Your task to perform on an android device: open the mobile data screen to see how much data has been used Image 0: 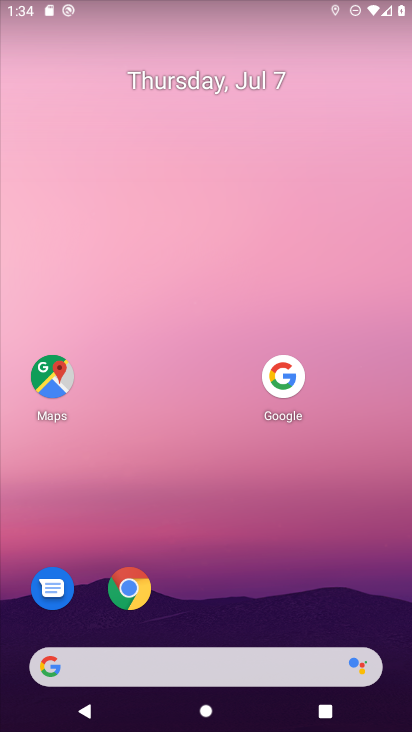
Step 0: drag from (206, 667) to (393, 100)
Your task to perform on an android device: open the mobile data screen to see how much data has been used Image 1: 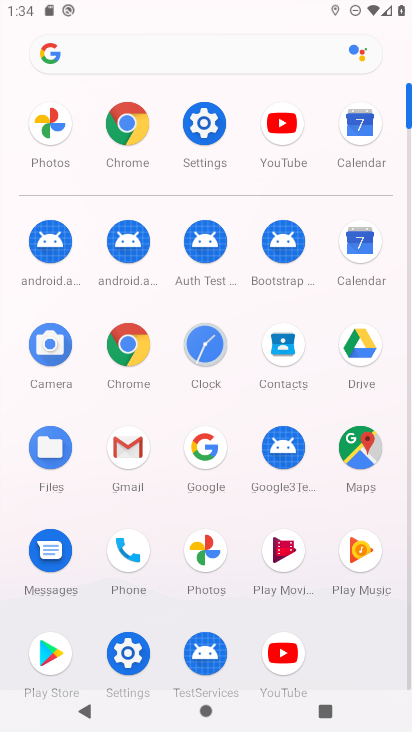
Step 1: click (210, 126)
Your task to perform on an android device: open the mobile data screen to see how much data has been used Image 2: 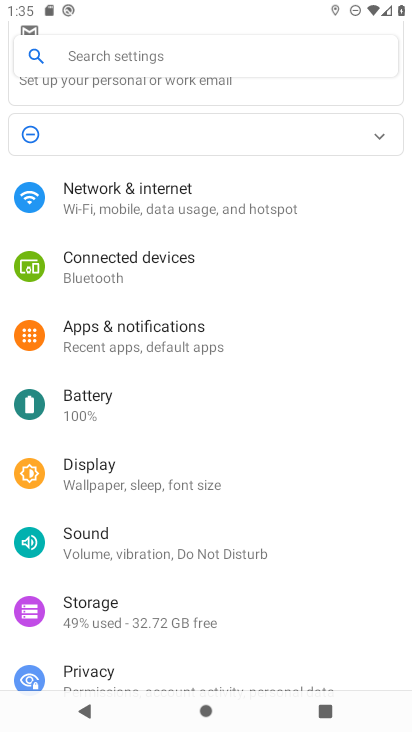
Step 2: drag from (197, 487) to (404, 289)
Your task to perform on an android device: open the mobile data screen to see how much data has been used Image 3: 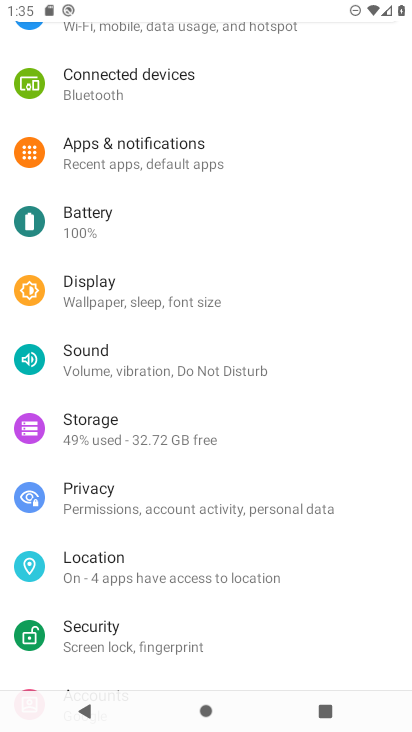
Step 3: drag from (282, 161) to (126, 464)
Your task to perform on an android device: open the mobile data screen to see how much data has been used Image 4: 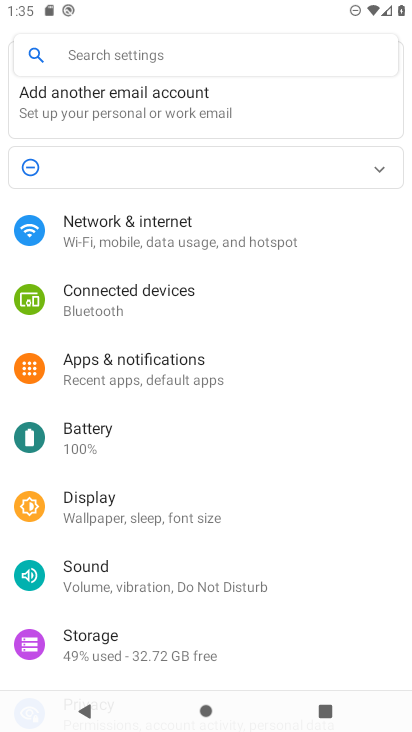
Step 4: click (180, 240)
Your task to perform on an android device: open the mobile data screen to see how much data has been used Image 5: 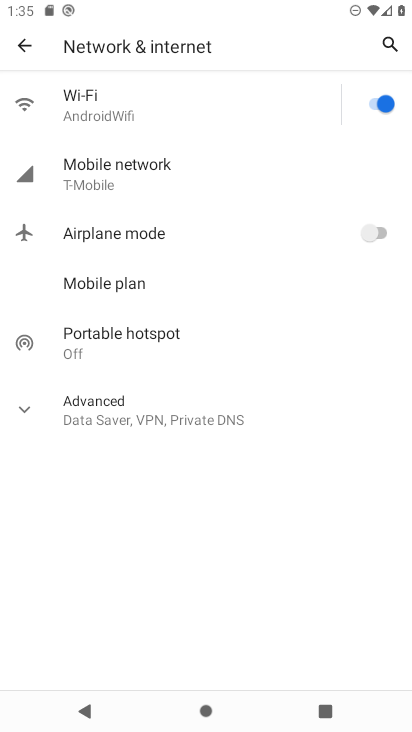
Step 5: click (144, 167)
Your task to perform on an android device: open the mobile data screen to see how much data has been used Image 6: 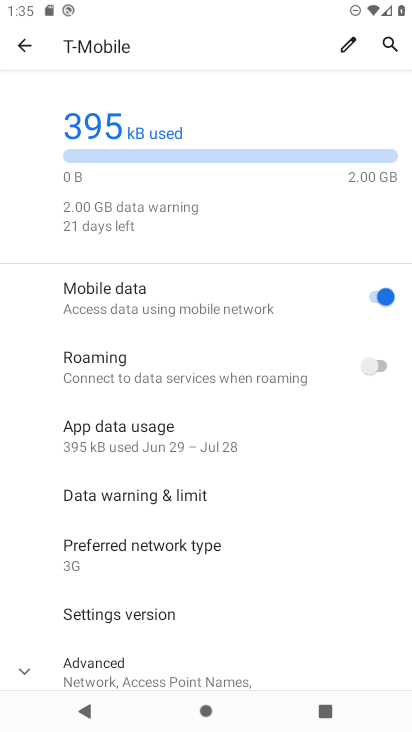
Step 6: task complete